Your task to perform on an android device: Show me popular games on the Play Store Image 0: 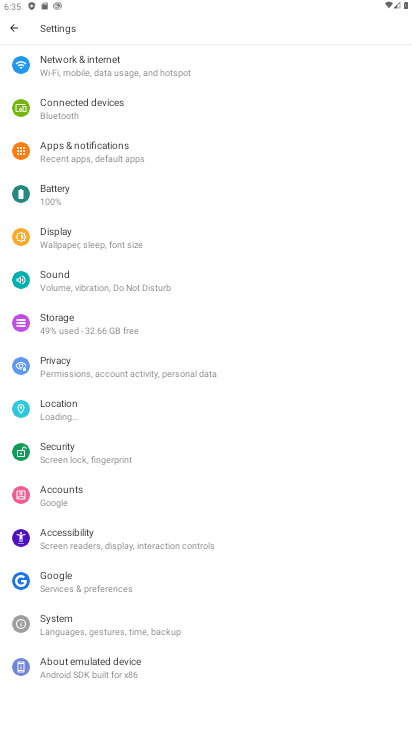
Step 0: press home button
Your task to perform on an android device: Show me popular games on the Play Store Image 1: 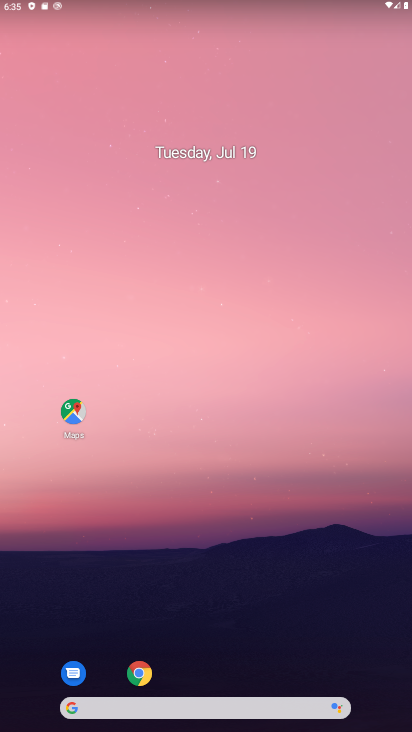
Step 1: drag from (351, 662) to (167, 7)
Your task to perform on an android device: Show me popular games on the Play Store Image 2: 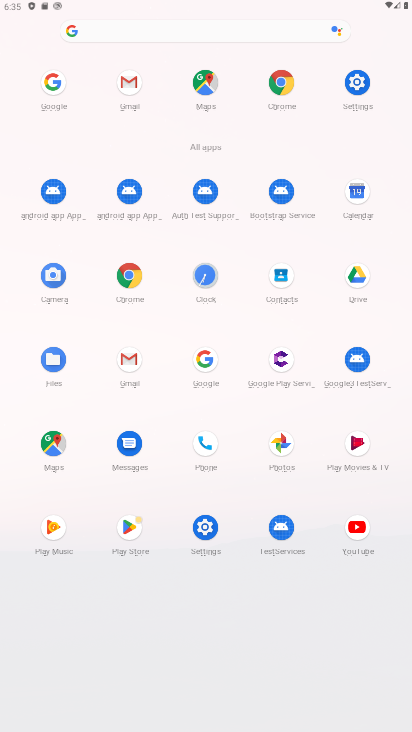
Step 2: click (117, 528)
Your task to perform on an android device: Show me popular games on the Play Store Image 3: 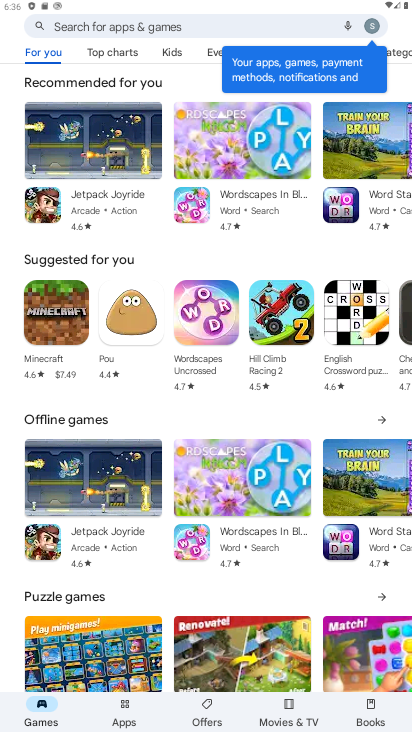
Step 3: click (140, 19)
Your task to perform on an android device: Show me popular games on the Play Store Image 4: 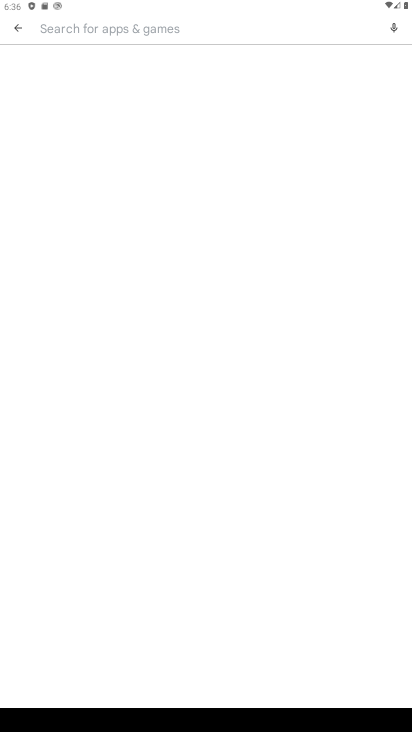
Step 4: type "popular games"
Your task to perform on an android device: Show me popular games on the Play Store Image 5: 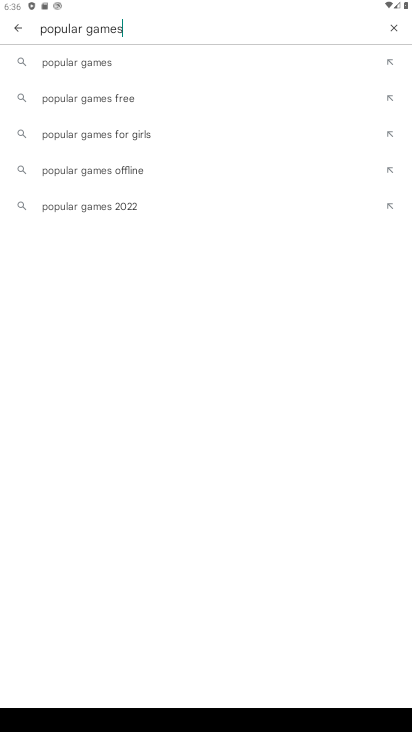
Step 5: click (65, 54)
Your task to perform on an android device: Show me popular games on the Play Store Image 6: 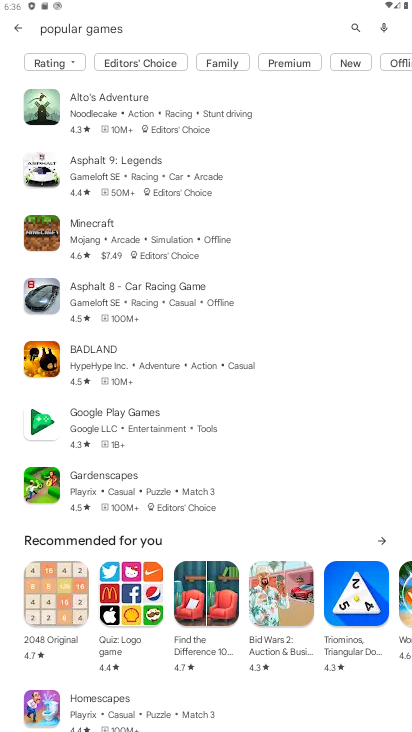
Step 6: task complete